Your task to perform on an android device: star an email in the gmail app Image 0: 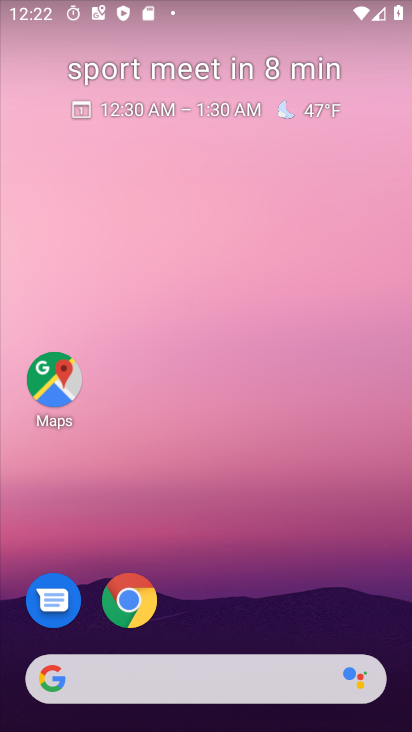
Step 0: drag from (204, 640) to (250, 132)
Your task to perform on an android device: star an email in the gmail app Image 1: 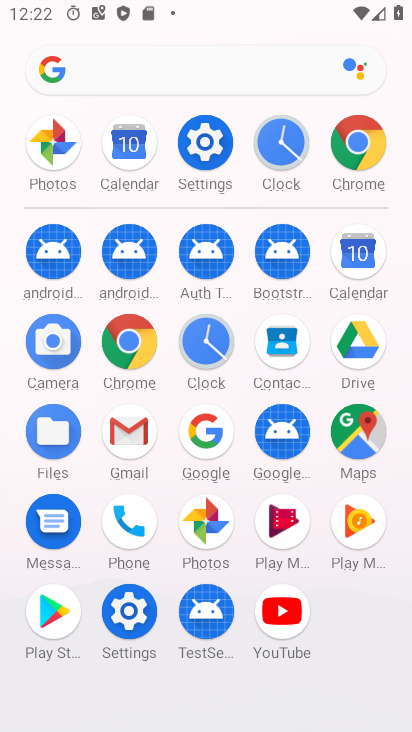
Step 1: click (125, 438)
Your task to perform on an android device: star an email in the gmail app Image 2: 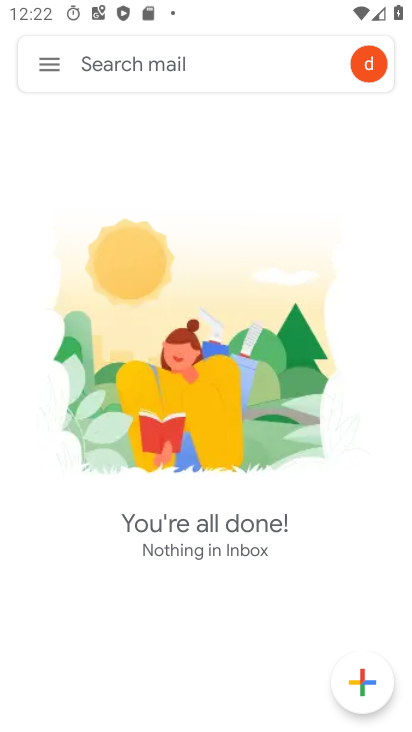
Step 2: click (57, 64)
Your task to perform on an android device: star an email in the gmail app Image 3: 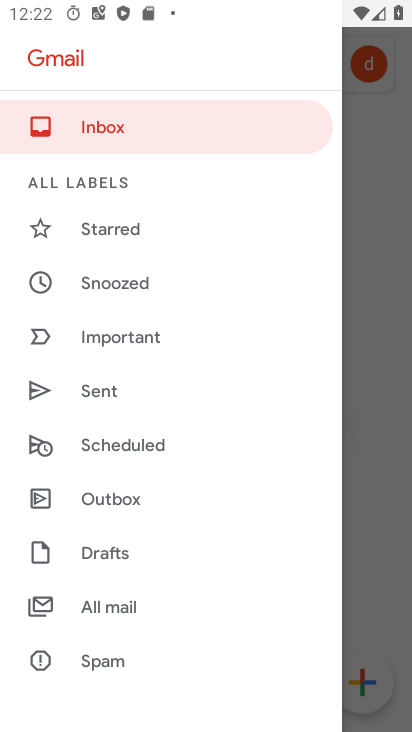
Step 3: click (378, 246)
Your task to perform on an android device: star an email in the gmail app Image 4: 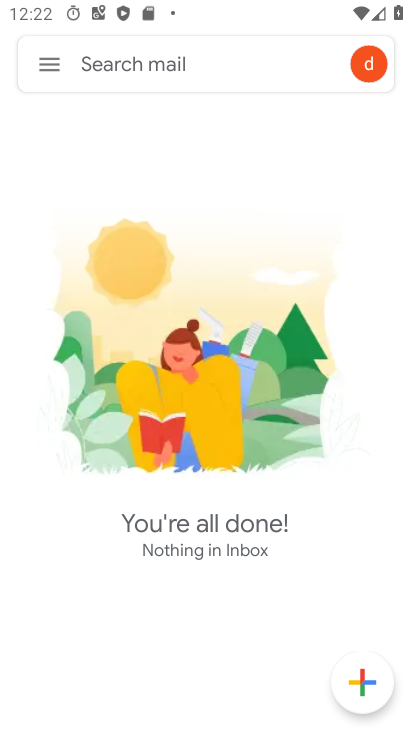
Step 4: task complete